Your task to perform on an android device: Open Youtube and go to the subscriptions tab Image 0: 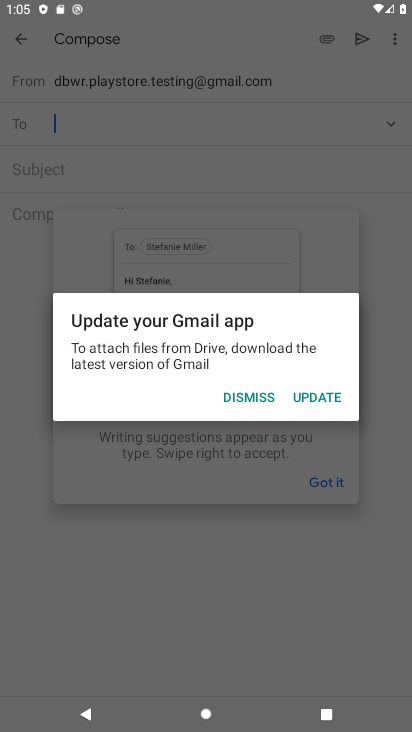
Step 0: press home button
Your task to perform on an android device: Open Youtube and go to the subscriptions tab Image 1: 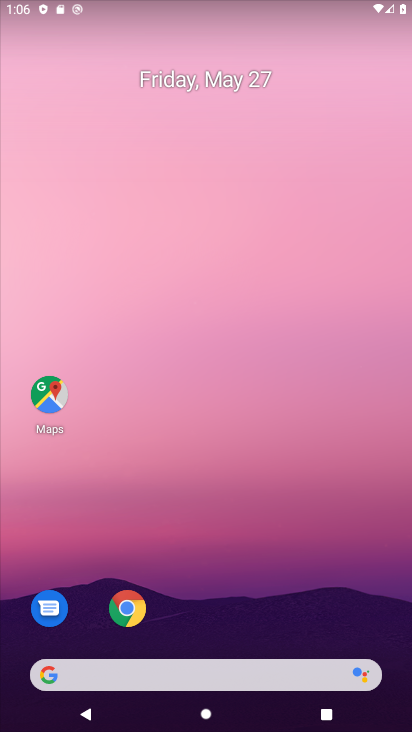
Step 1: drag from (253, 681) to (375, 113)
Your task to perform on an android device: Open Youtube and go to the subscriptions tab Image 2: 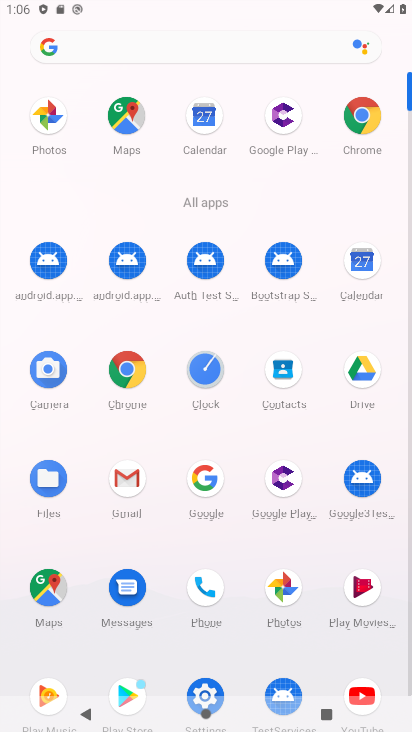
Step 2: click (365, 697)
Your task to perform on an android device: Open Youtube and go to the subscriptions tab Image 3: 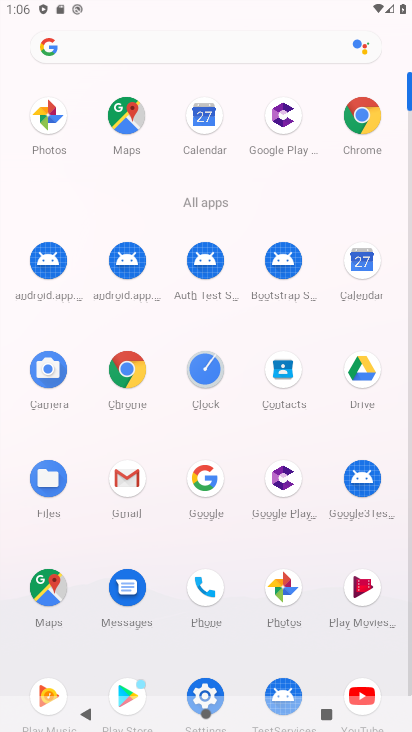
Step 3: click (360, 690)
Your task to perform on an android device: Open Youtube and go to the subscriptions tab Image 4: 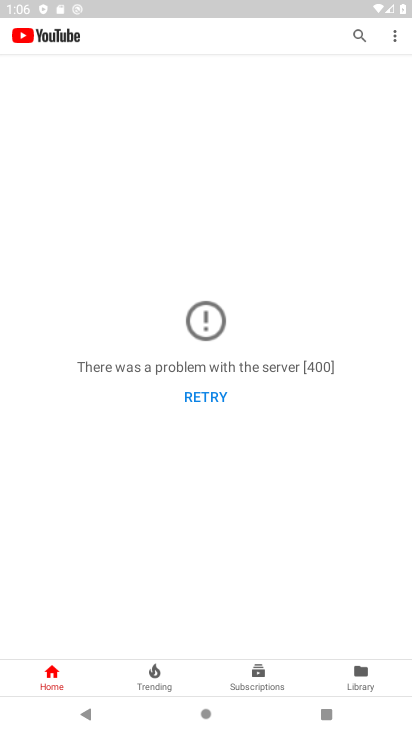
Step 4: click (209, 390)
Your task to perform on an android device: Open Youtube and go to the subscriptions tab Image 5: 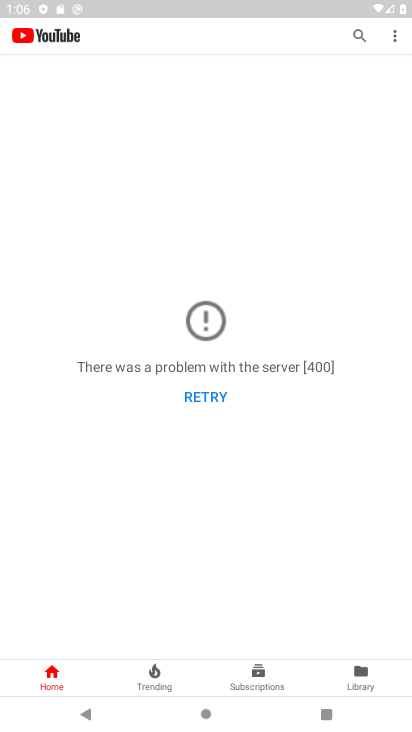
Step 5: click (204, 394)
Your task to perform on an android device: Open Youtube and go to the subscriptions tab Image 6: 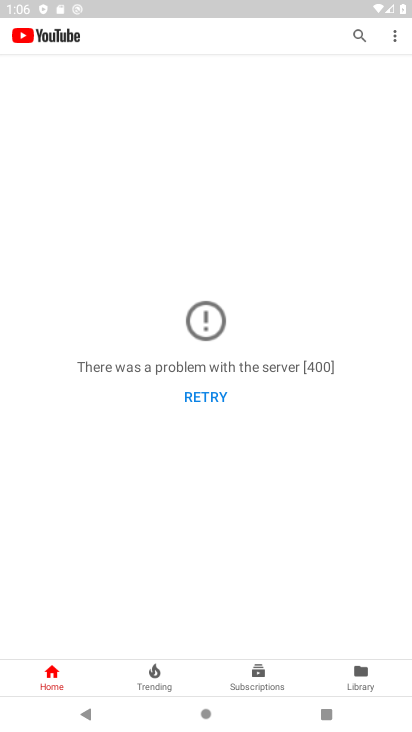
Step 6: click (252, 686)
Your task to perform on an android device: Open Youtube and go to the subscriptions tab Image 7: 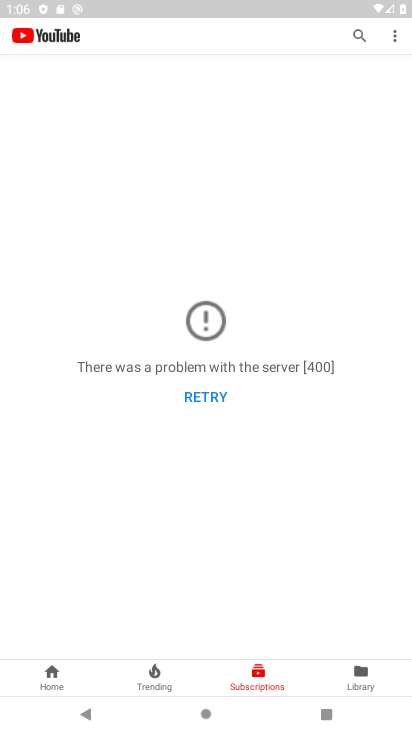
Step 7: click (203, 397)
Your task to perform on an android device: Open Youtube and go to the subscriptions tab Image 8: 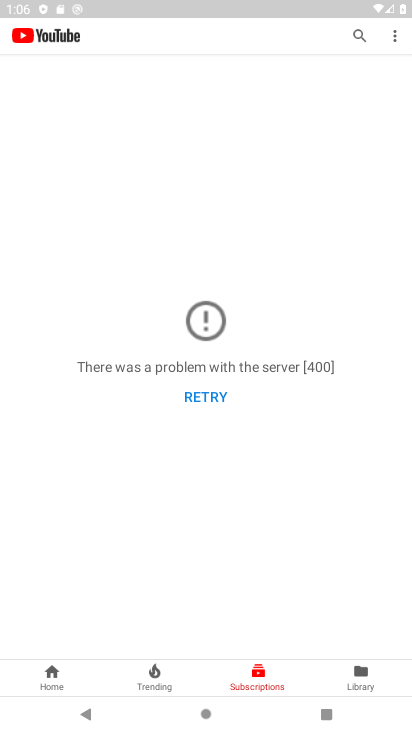
Step 8: task complete